Your task to perform on an android device: Go to privacy settings Image 0: 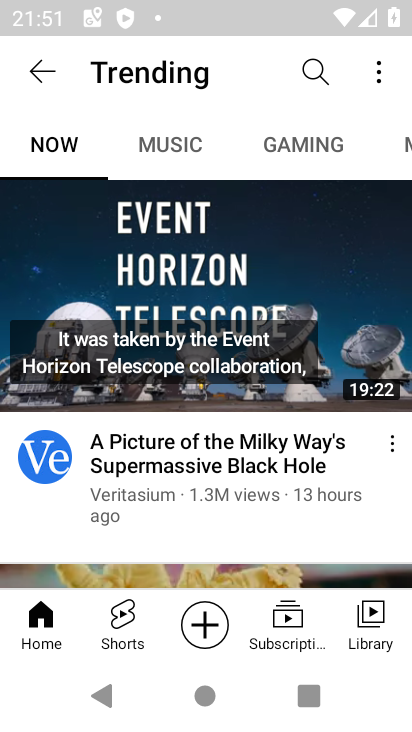
Step 0: press home button
Your task to perform on an android device: Go to privacy settings Image 1: 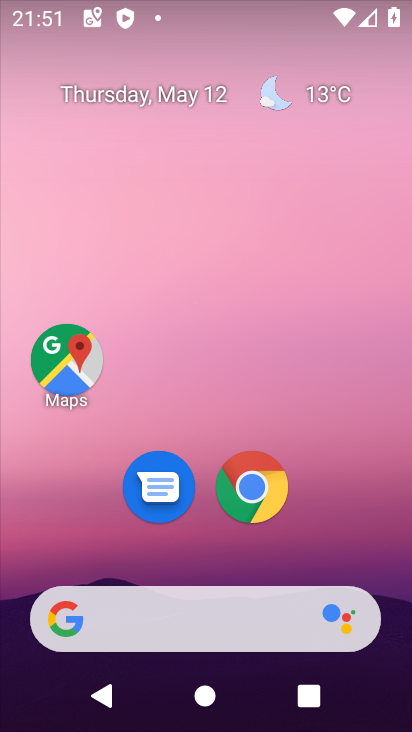
Step 1: drag from (208, 543) to (239, 245)
Your task to perform on an android device: Go to privacy settings Image 2: 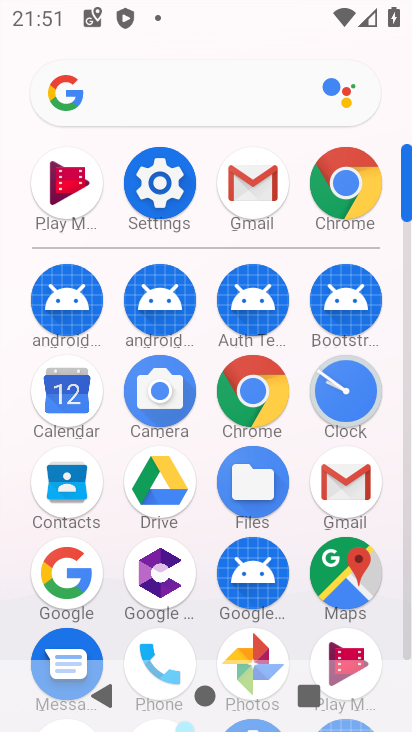
Step 2: click (170, 202)
Your task to perform on an android device: Go to privacy settings Image 3: 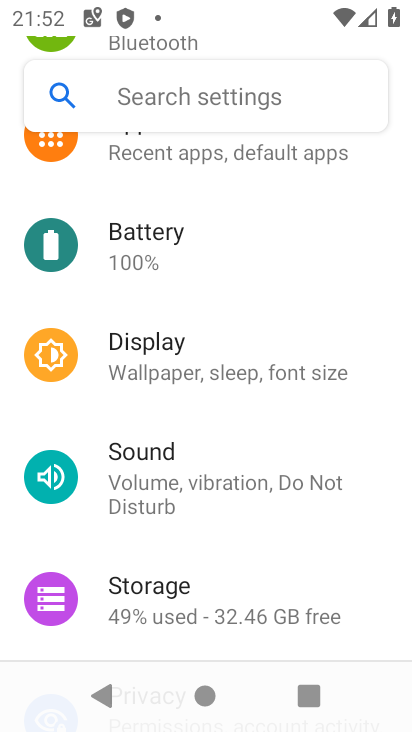
Step 3: drag from (107, 573) to (159, 196)
Your task to perform on an android device: Go to privacy settings Image 4: 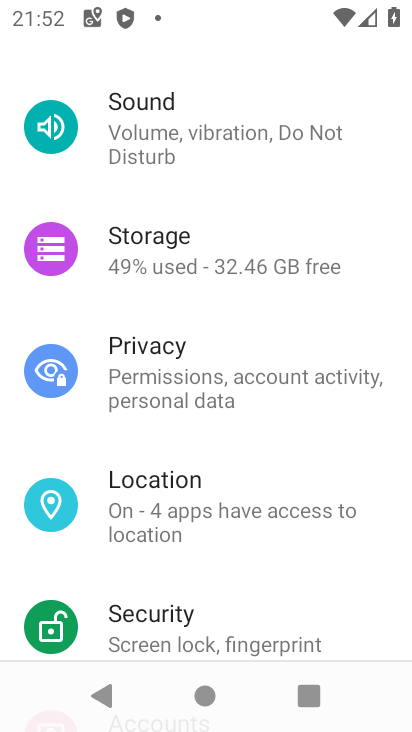
Step 4: click (215, 385)
Your task to perform on an android device: Go to privacy settings Image 5: 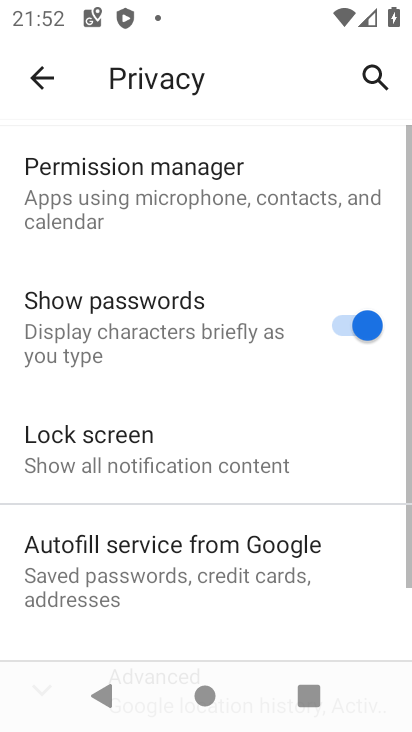
Step 5: task complete